Your task to perform on an android device: turn on bluetooth scan Image 0: 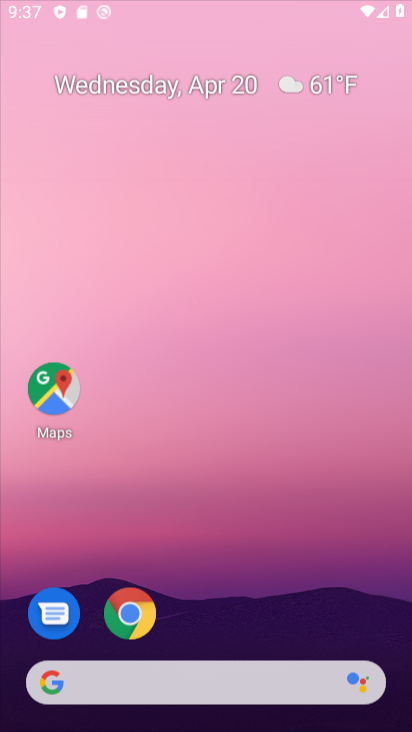
Step 0: drag from (294, 626) to (219, 99)
Your task to perform on an android device: turn on bluetooth scan Image 1: 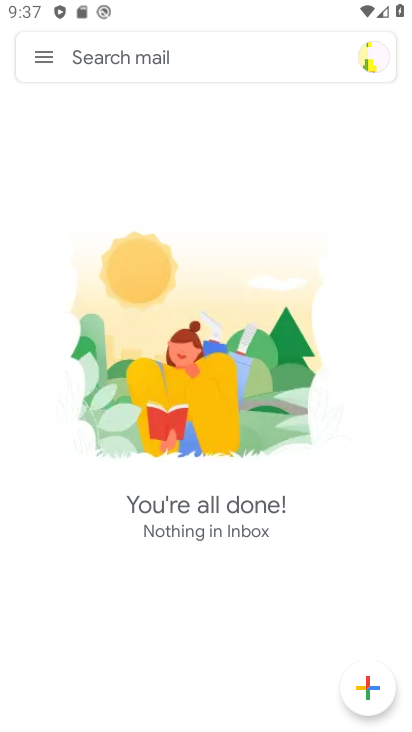
Step 1: press home button
Your task to perform on an android device: turn on bluetooth scan Image 2: 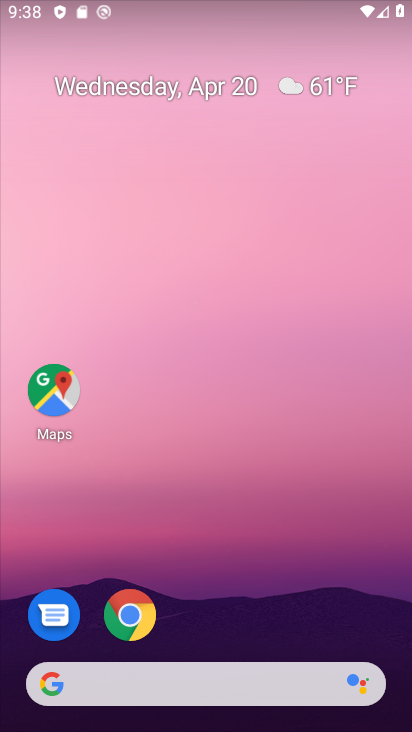
Step 2: drag from (199, 600) to (181, 0)
Your task to perform on an android device: turn on bluetooth scan Image 3: 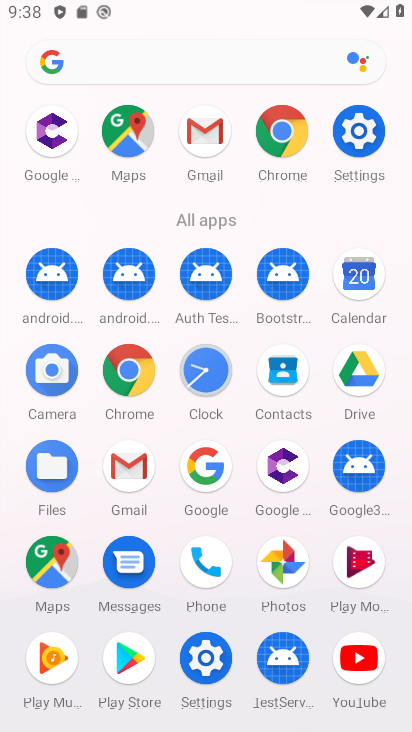
Step 3: click (371, 139)
Your task to perform on an android device: turn on bluetooth scan Image 4: 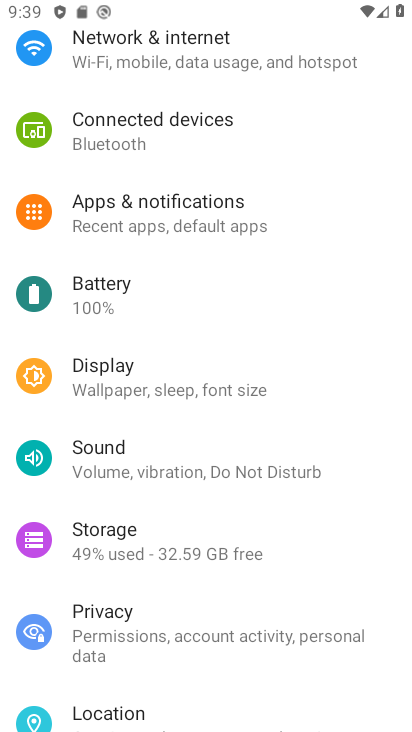
Step 4: drag from (186, 666) to (229, 341)
Your task to perform on an android device: turn on bluetooth scan Image 5: 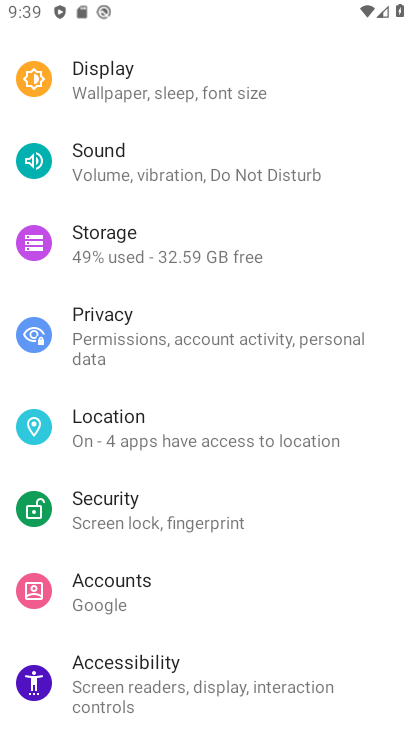
Step 5: click (263, 447)
Your task to perform on an android device: turn on bluetooth scan Image 6: 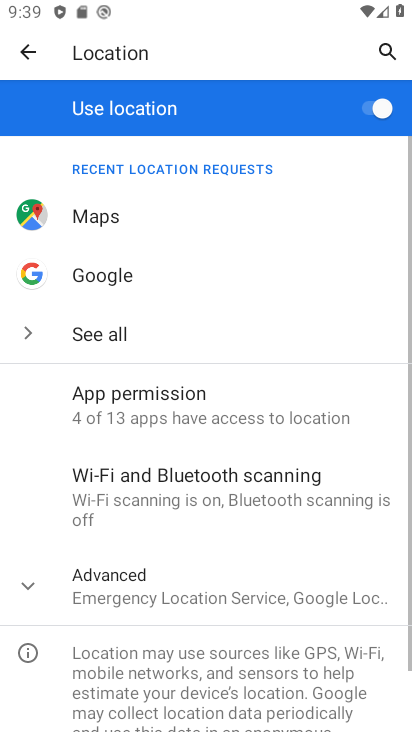
Step 6: click (149, 504)
Your task to perform on an android device: turn on bluetooth scan Image 7: 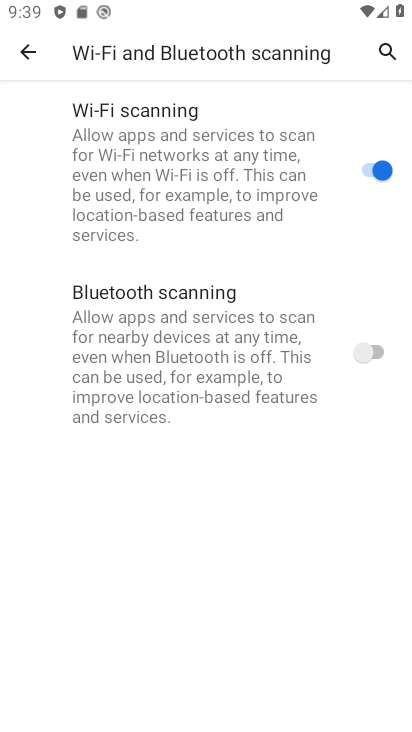
Step 7: click (294, 378)
Your task to perform on an android device: turn on bluetooth scan Image 8: 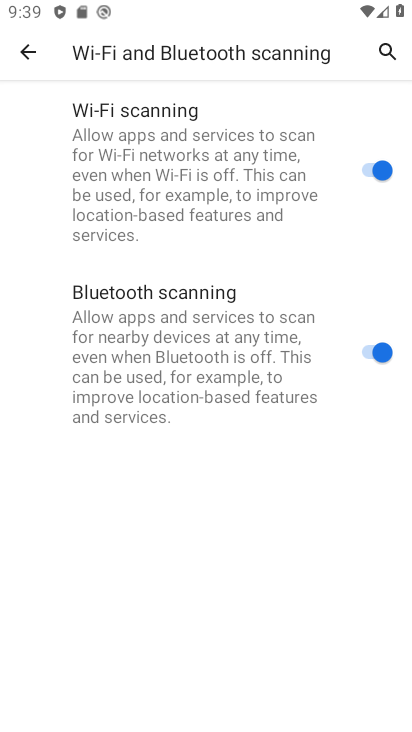
Step 8: task complete